Your task to perform on an android device: change your default location settings in chrome Image 0: 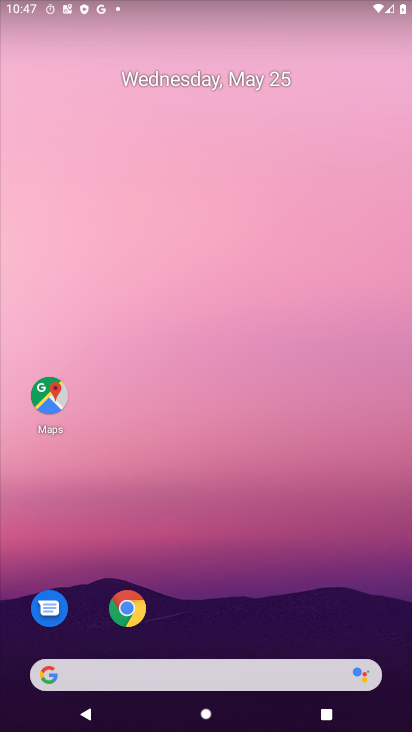
Step 0: click (129, 612)
Your task to perform on an android device: change your default location settings in chrome Image 1: 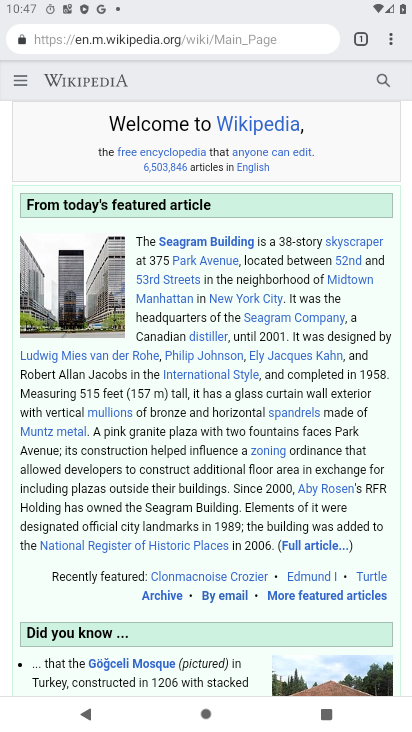
Step 1: click (392, 43)
Your task to perform on an android device: change your default location settings in chrome Image 2: 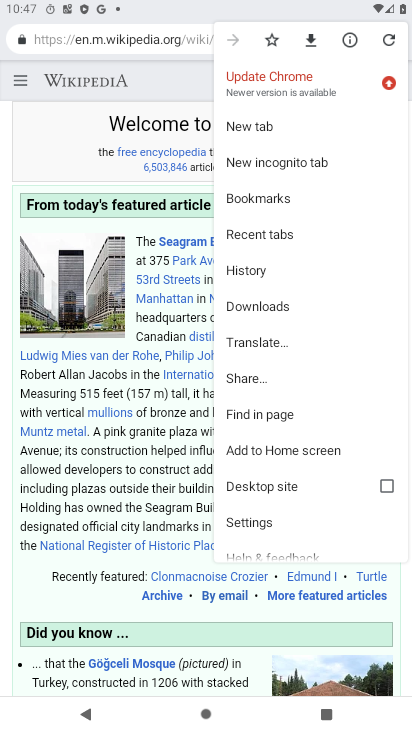
Step 2: click (248, 517)
Your task to perform on an android device: change your default location settings in chrome Image 3: 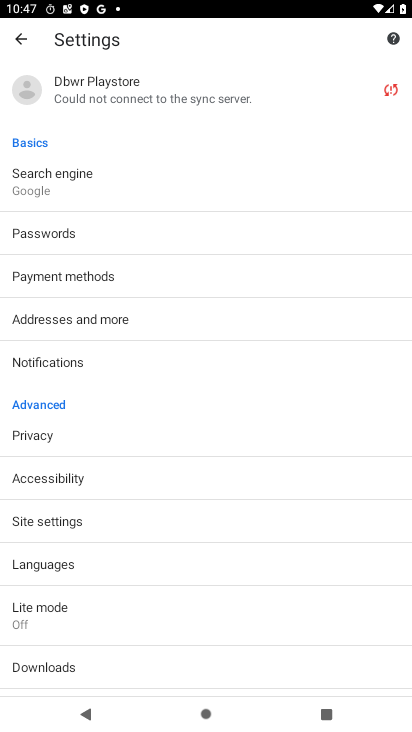
Step 3: click (47, 522)
Your task to perform on an android device: change your default location settings in chrome Image 4: 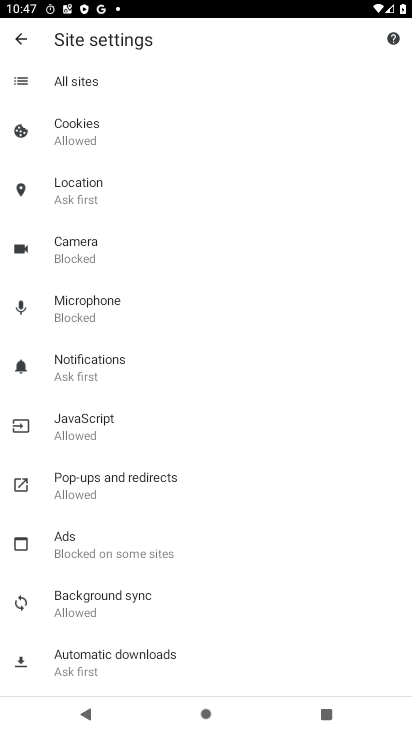
Step 4: click (65, 195)
Your task to perform on an android device: change your default location settings in chrome Image 5: 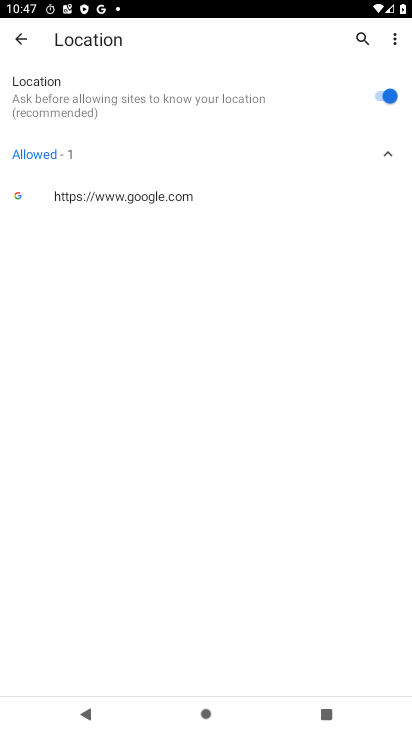
Step 5: click (384, 101)
Your task to perform on an android device: change your default location settings in chrome Image 6: 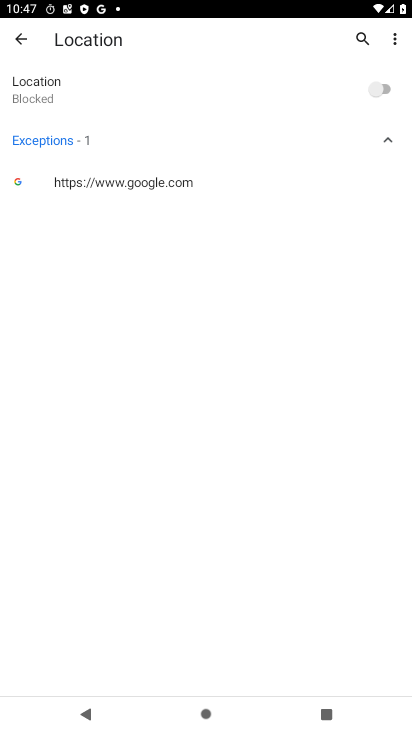
Step 6: task complete